Your task to perform on an android device: turn vacation reply on in the gmail app Image 0: 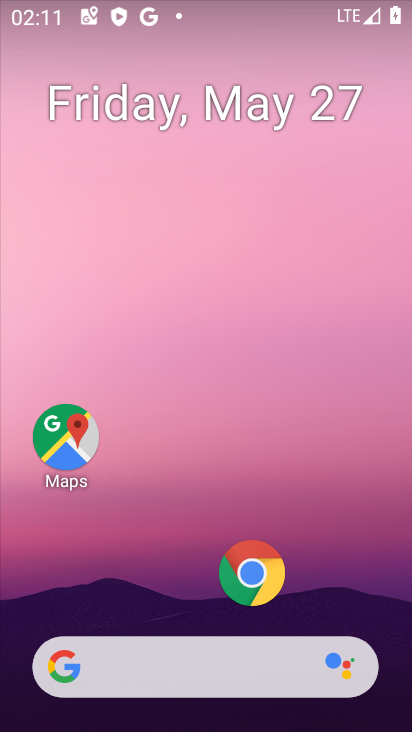
Step 0: drag from (243, 621) to (186, 0)
Your task to perform on an android device: turn vacation reply on in the gmail app Image 1: 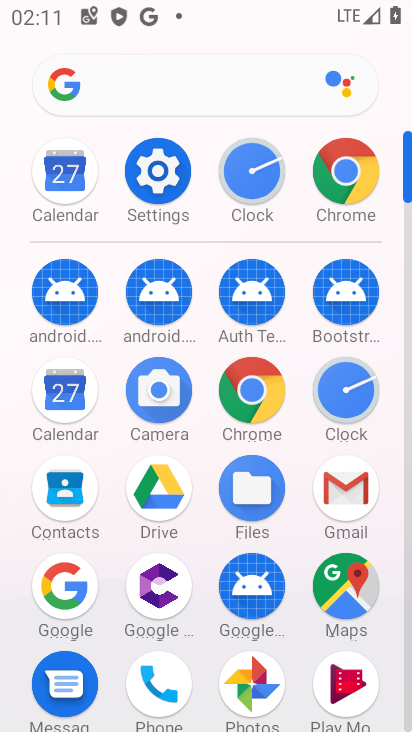
Step 1: click (355, 515)
Your task to perform on an android device: turn vacation reply on in the gmail app Image 2: 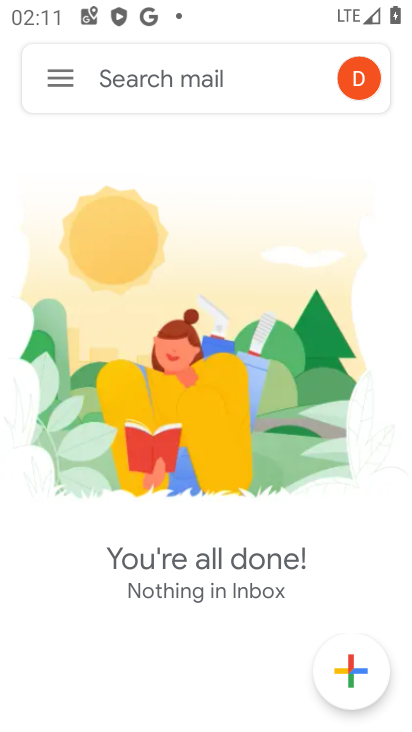
Step 2: click (64, 79)
Your task to perform on an android device: turn vacation reply on in the gmail app Image 3: 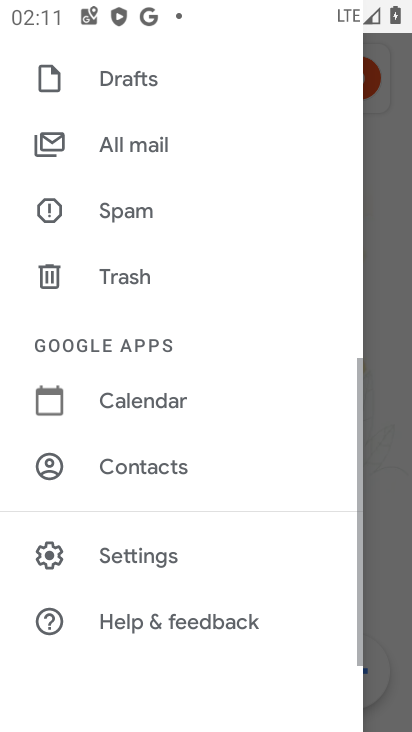
Step 3: click (104, 530)
Your task to perform on an android device: turn vacation reply on in the gmail app Image 4: 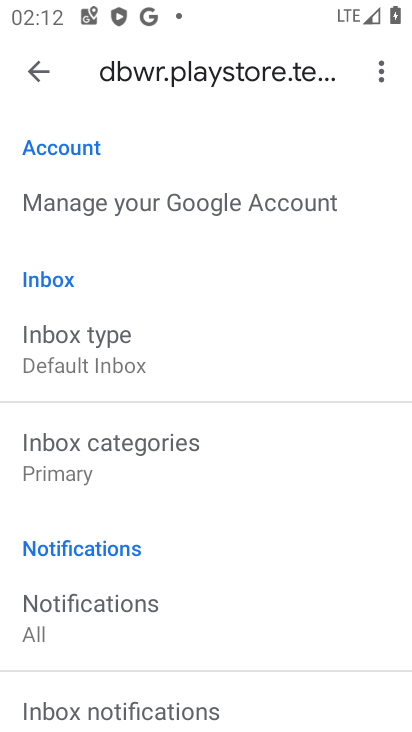
Step 4: drag from (123, 614) to (82, 203)
Your task to perform on an android device: turn vacation reply on in the gmail app Image 5: 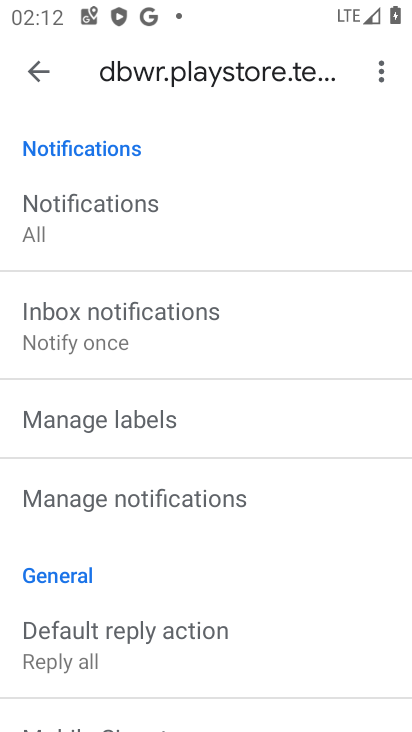
Step 5: drag from (154, 618) to (100, 104)
Your task to perform on an android device: turn vacation reply on in the gmail app Image 6: 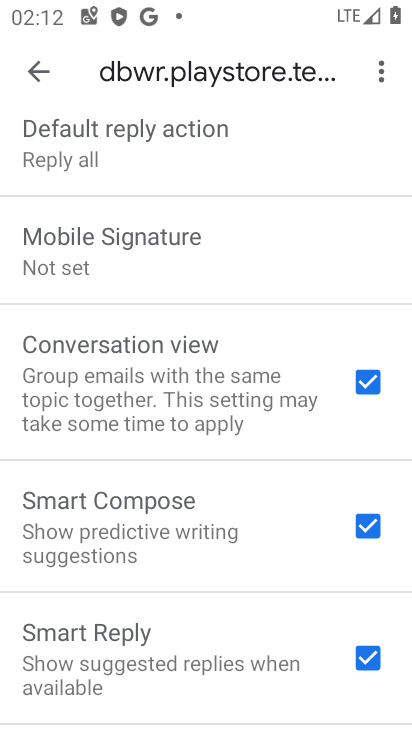
Step 6: drag from (247, 579) to (190, 139)
Your task to perform on an android device: turn vacation reply on in the gmail app Image 7: 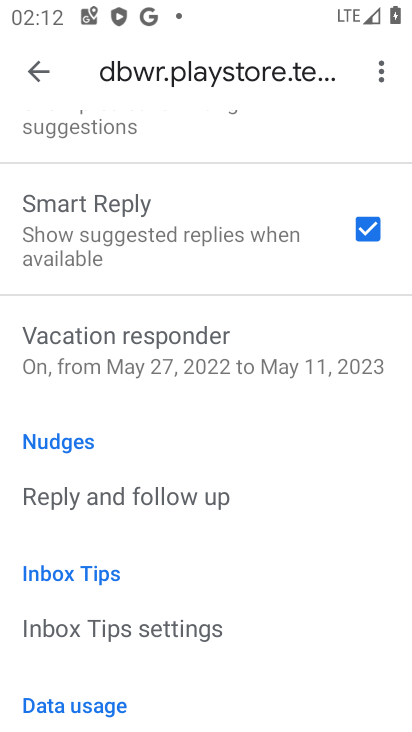
Step 7: click (198, 362)
Your task to perform on an android device: turn vacation reply on in the gmail app Image 8: 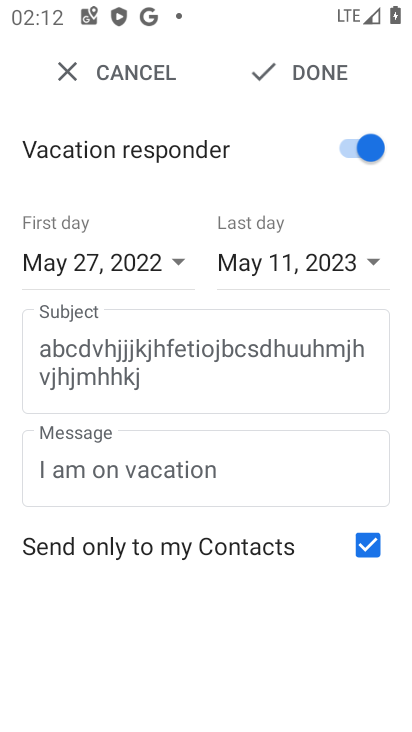
Step 8: click (332, 77)
Your task to perform on an android device: turn vacation reply on in the gmail app Image 9: 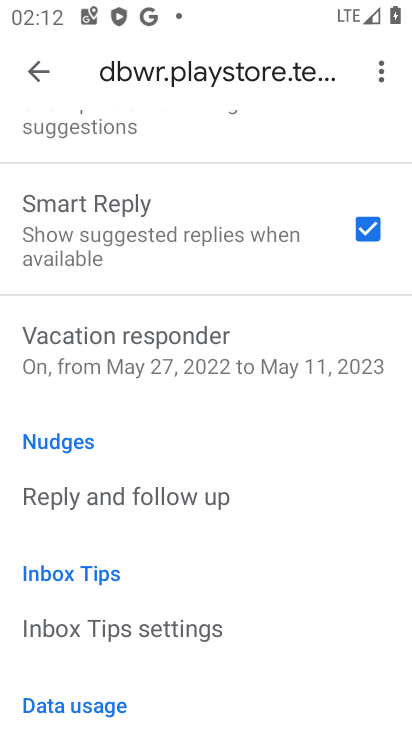
Step 9: task complete